Your task to perform on an android device: remove spam from my inbox in the gmail app Image 0: 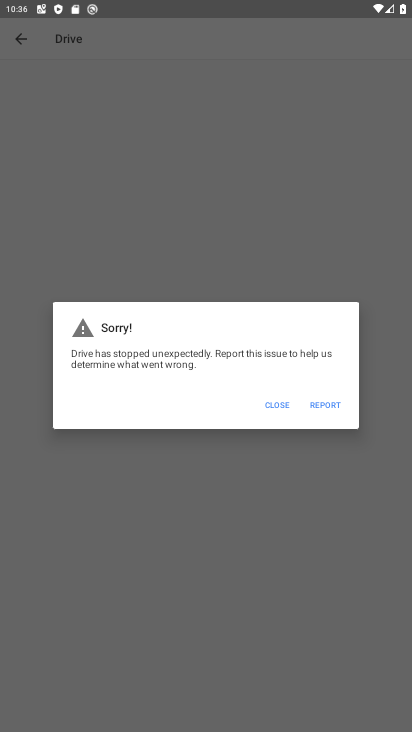
Step 0: press home button
Your task to perform on an android device: remove spam from my inbox in the gmail app Image 1: 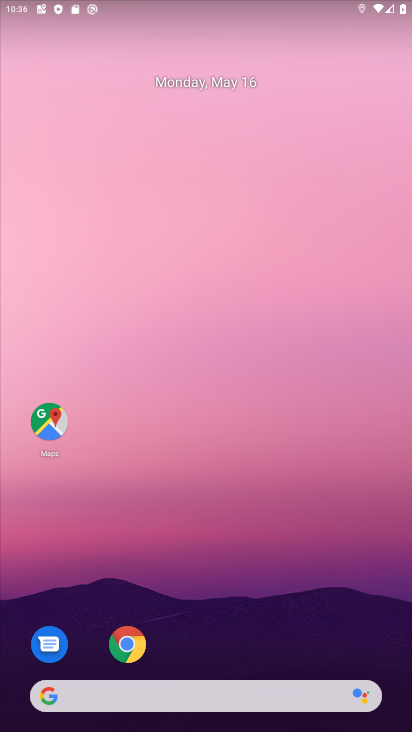
Step 1: drag from (219, 727) to (208, 167)
Your task to perform on an android device: remove spam from my inbox in the gmail app Image 2: 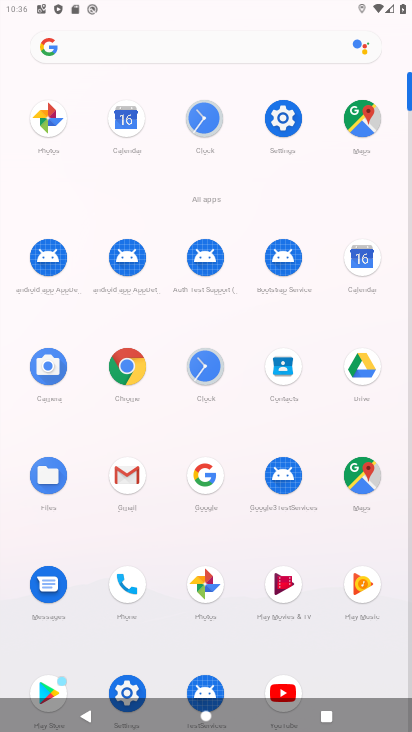
Step 2: click (130, 481)
Your task to perform on an android device: remove spam from my inbox in the gmail app Image 3: 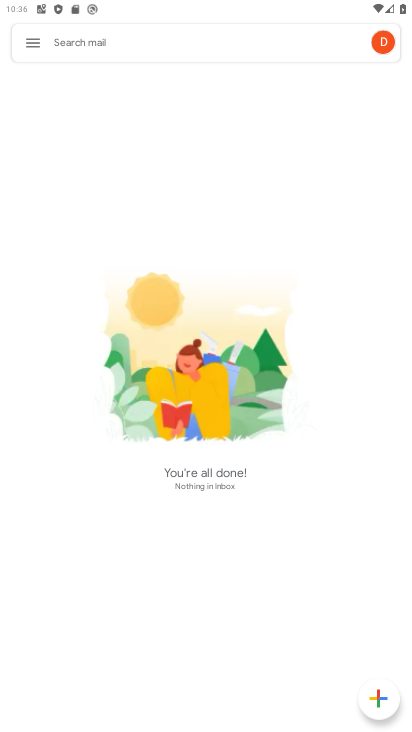
Step 3: task complete